Your task to perform on an android device: toggle notification dots Image 0: 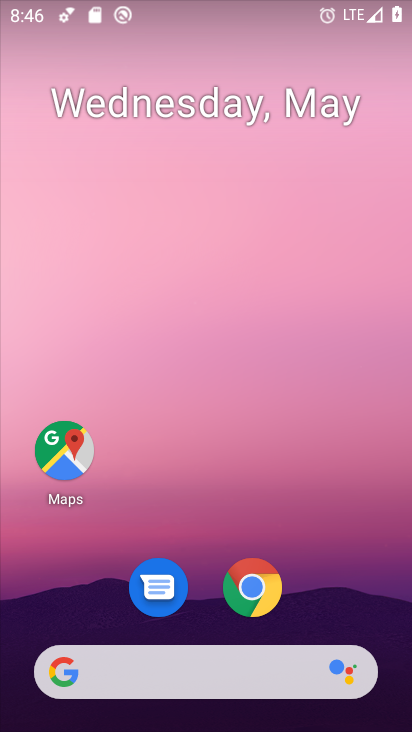
Step 0: drag from (307, 578) to (339, 242)
Your task to perform on an android device: toggle notification dots Image 1: 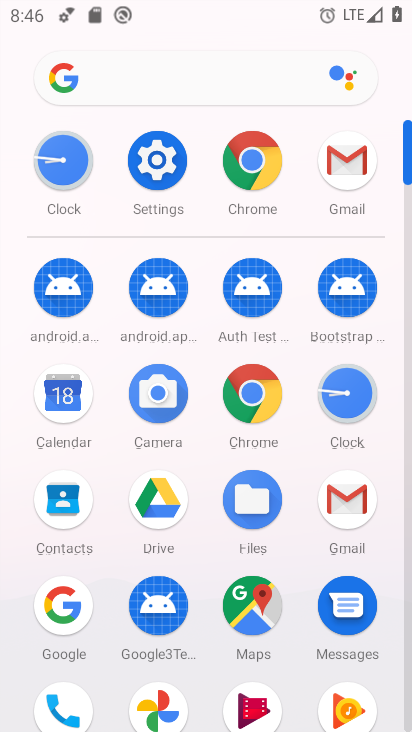
Step 1: click (162, 145)
Your task to perform on an android device: toggle notification dots Image 2: 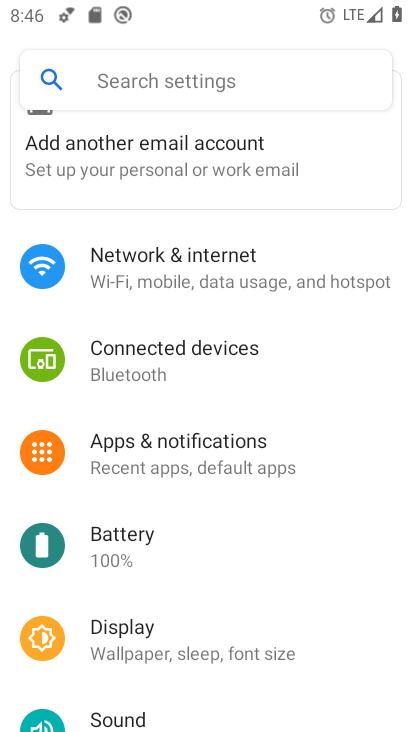
Step 2: click (190, 444)
Your task to perform on an android device: toggle notification dots Image 3: 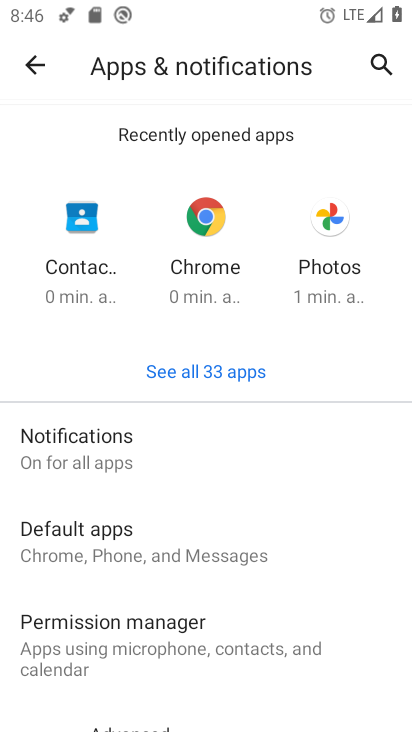
Step 3: click (124, 457)
Your task to perform on an android device: toggle notification dots Image 4: 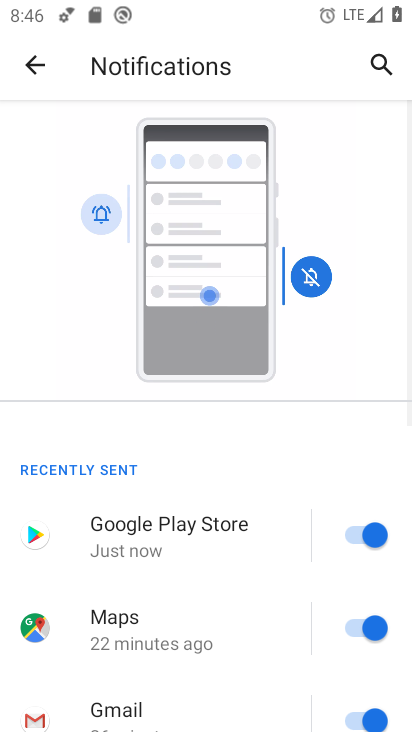
Step 4: drag from (162, 599) to (202, 354)
Your task to perform on an android device: toggle notification dots Image 5: 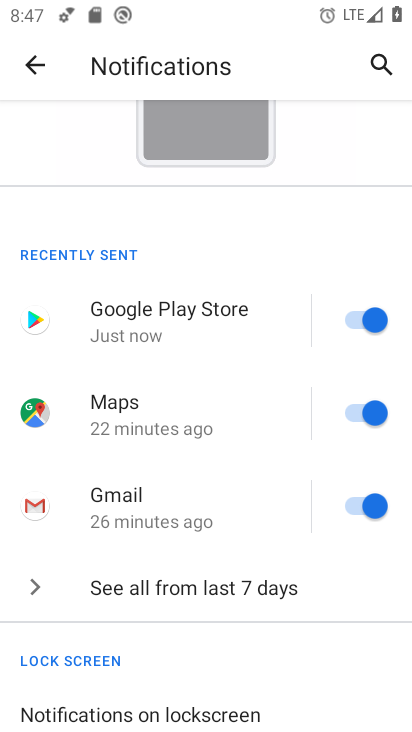
Step 5: drag from (199, 603) to (237, 362)
Your task to perform on an android device: toggle notification dots Image 6: 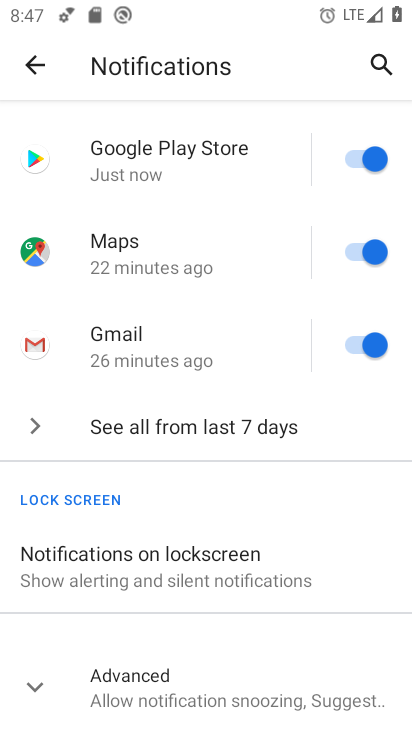
Step 6: click (171, 679)
Your task to perform on an android device: toggle notification dots Image 7: 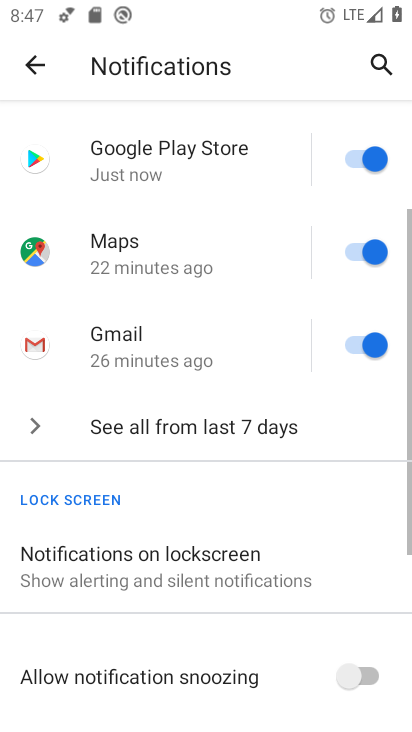
Step 7: drag from (184, 639) to (220, 371)
Your task to perform on an android device: toggle notification dots Image 8: 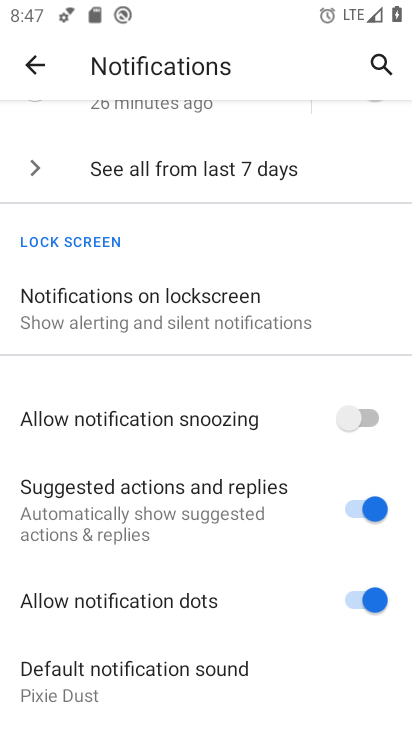
Step 8: click (350, 598)
Your task to perform on an android device: toggle notification dots Image 9: 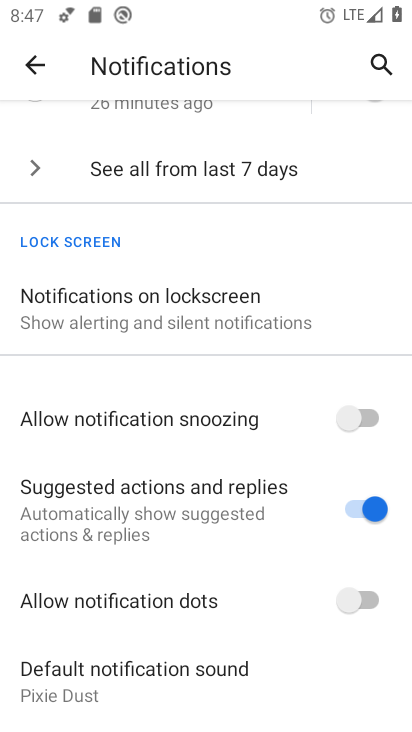
Step 9: task complete